Your task to perform on an android device: move a message to another label in the gmail app Image 0: 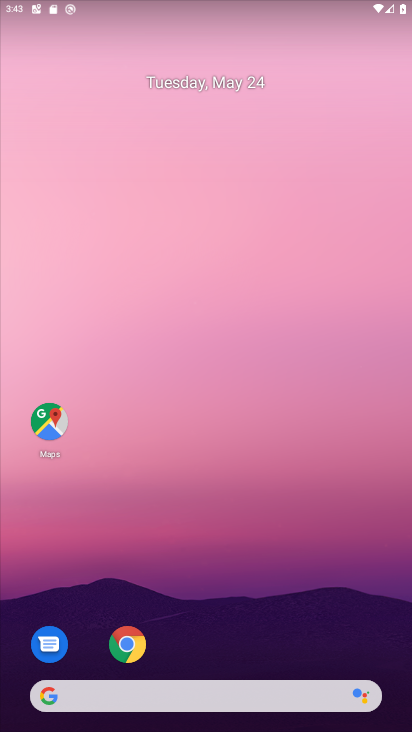
Step 0: drag from (343, 625) to (244, 128)
Your task to perform on an android device: move a message to another label in the gmail app Image 1: 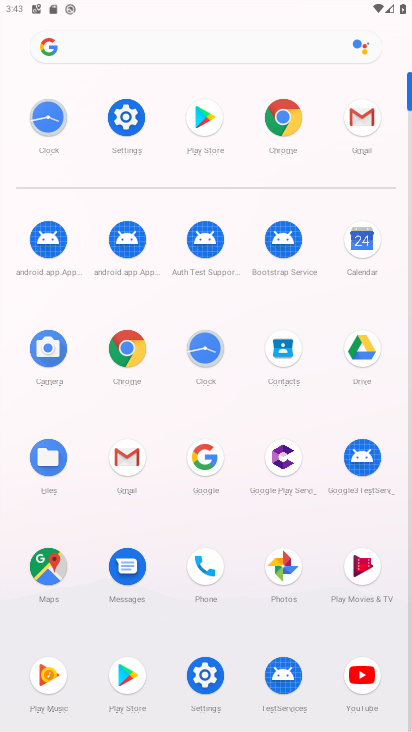
Step 1: click (364, 141)
Your task to perform on an android device: move a message to another label in the gmail app Image 2: 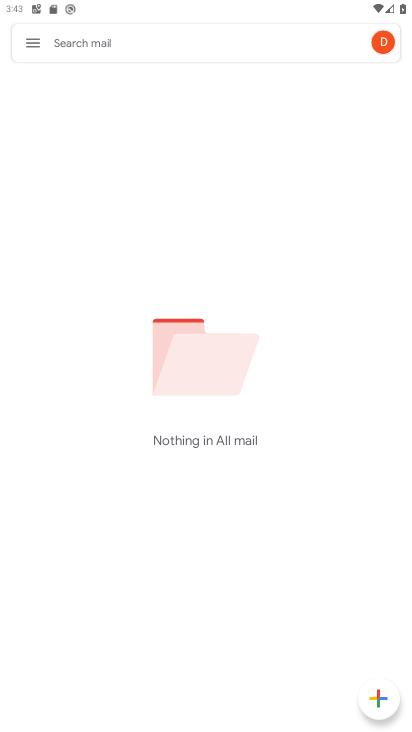
Step 2: click (21, 43)
Your task to perform on an android device: move a message to another label in the gmail app Image 3: 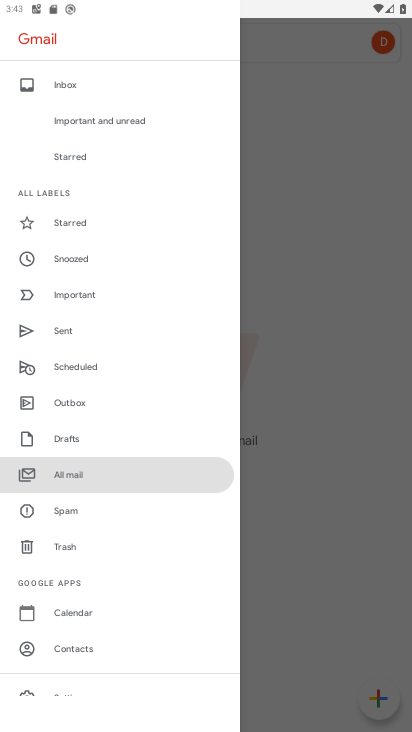
Step 3: click (33, 476)
Your task to perform on an android device: move a message to another label in the gmail app Image 4: 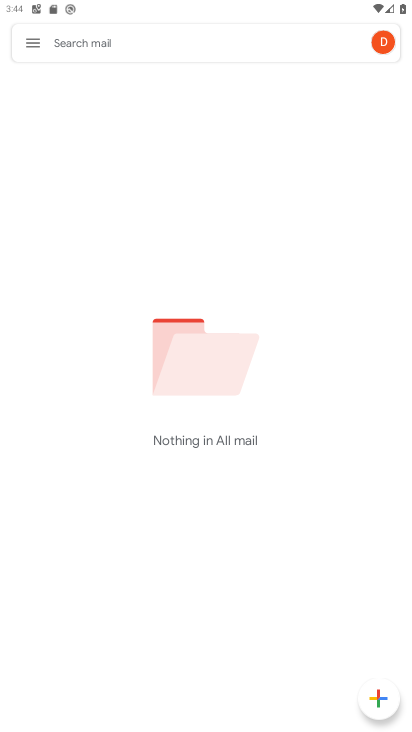
Step 4: task complete